Your task to perform on an android device: Open Google Maps and go to "Timeline" Image 0: 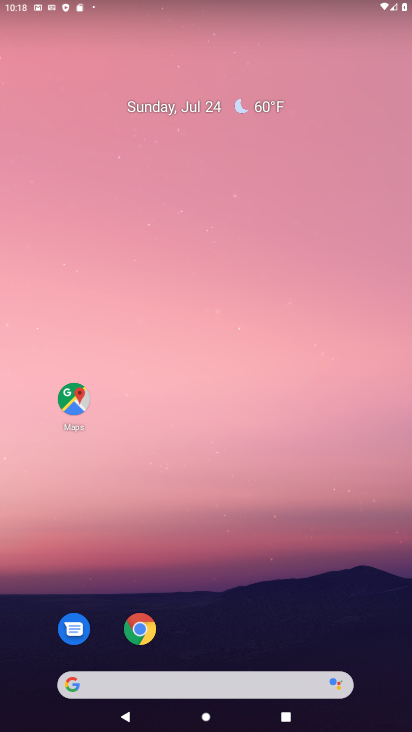
Step 0: drag from (259, 577) to (197, 163)
Your task to perform on an android device: Open Google Maps and go to "Timeline" Image 1: 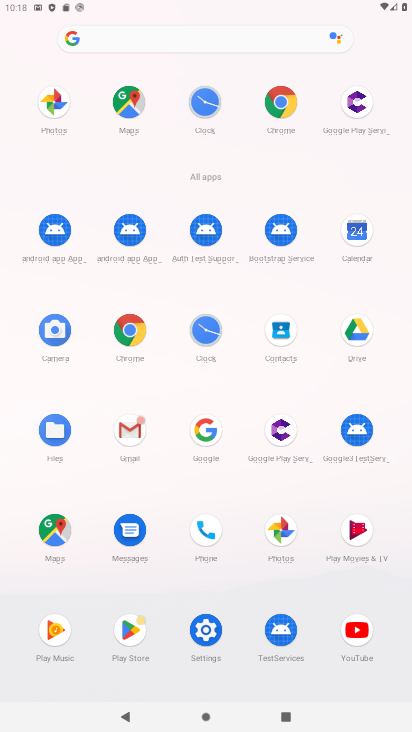
Step 1: click (51, 539)
Your task to perform on an android device: Open Google Maps and go to "Timeline" Image 2: 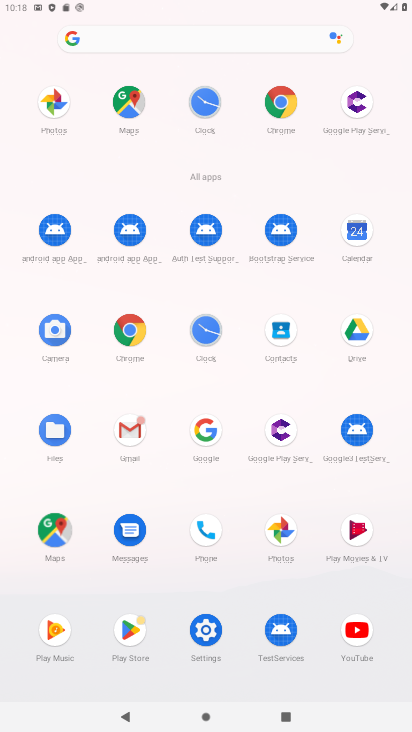
Step 2: click (51, 539)
Your task to perform on an android device: Open Google Maps and go to "Timeline" Image 3: 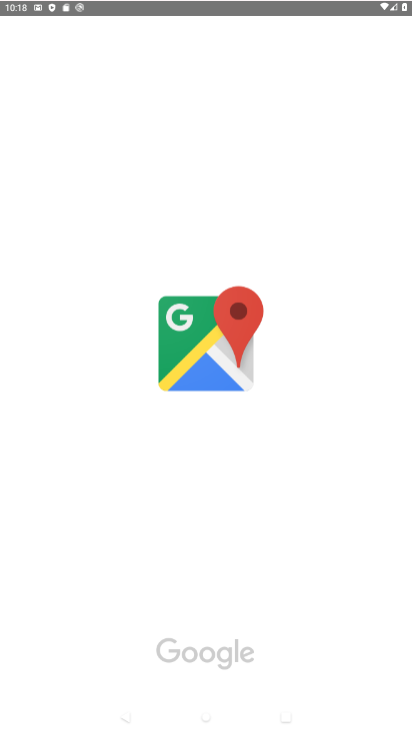
Step 3: click (51, 539)
Your task to perform on an android device: Open Google Maps and go to "Timeline" Image 4: 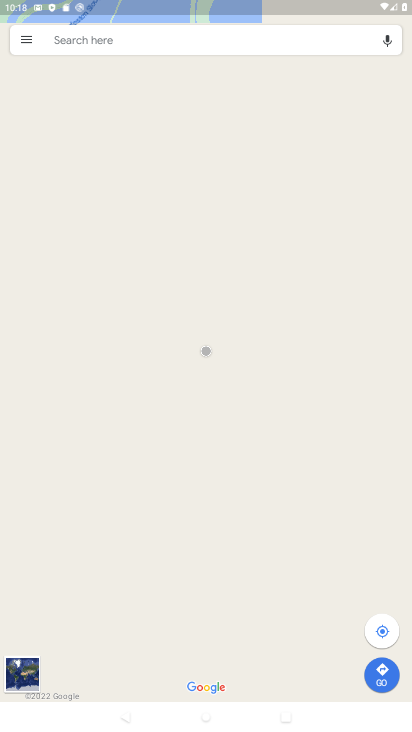
Step 4: click (30, 44)
Your task to perform on an android device: Open Google Maps and go to "Timeline" Image 5: 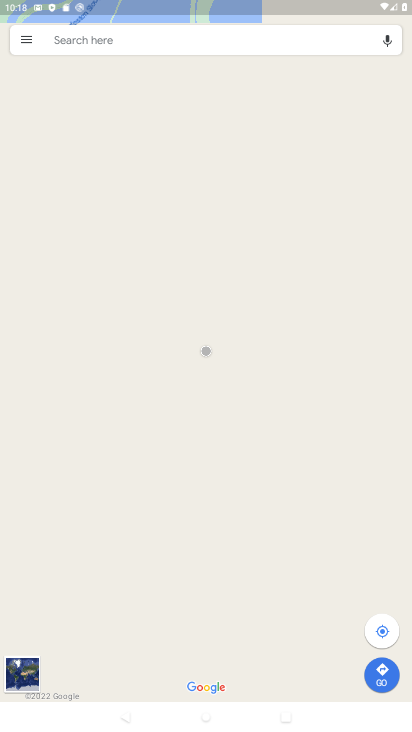
Step 5: click (27, 49)
Your task to perform on an android device: Open Google Maps and go to "Timeline" Image 6: 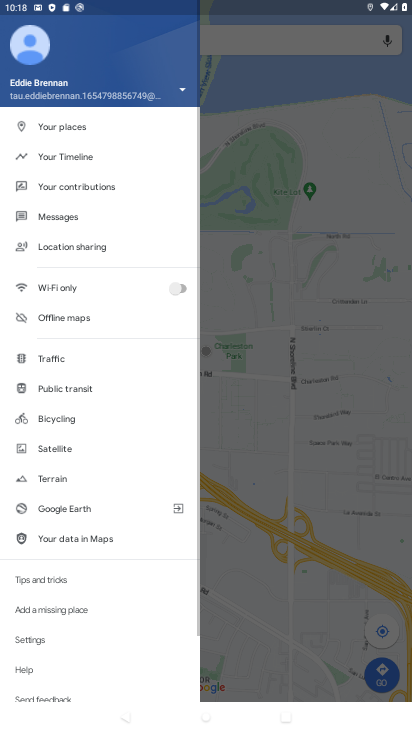
Step 6: click (73, 145)
Your task to perform on an android device: Open Google Maps and go to "Timeline" Image 7: 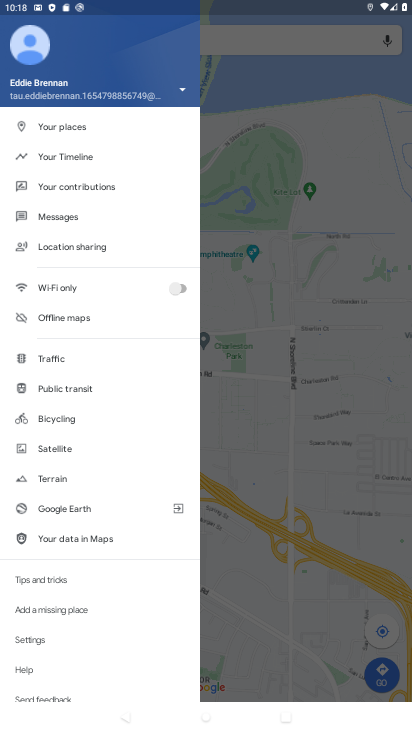
Step 7: click (75, 146)
Your task to perform on an android device: Open Google Maps and go to "Timeline" Image 8: 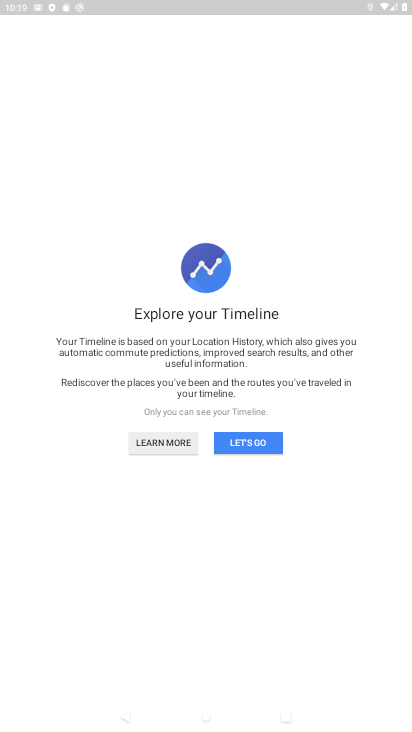
Step 8: task complete